Your task to perform on an android device: Open Yahoo.com Image 0: 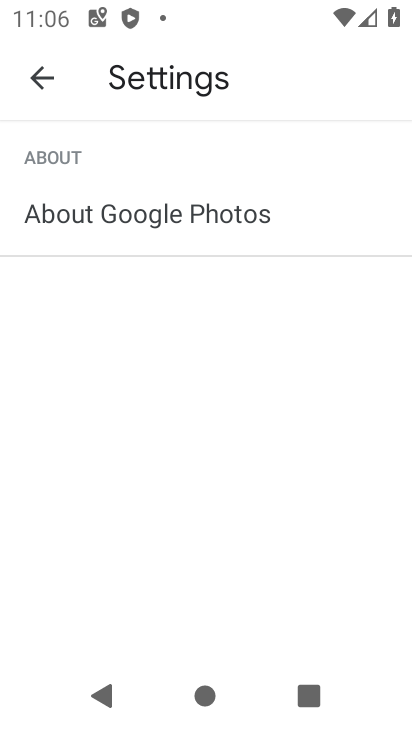
Step 0: press home button
Your task to perform on an android device: Open Yahoo.com Image 1: 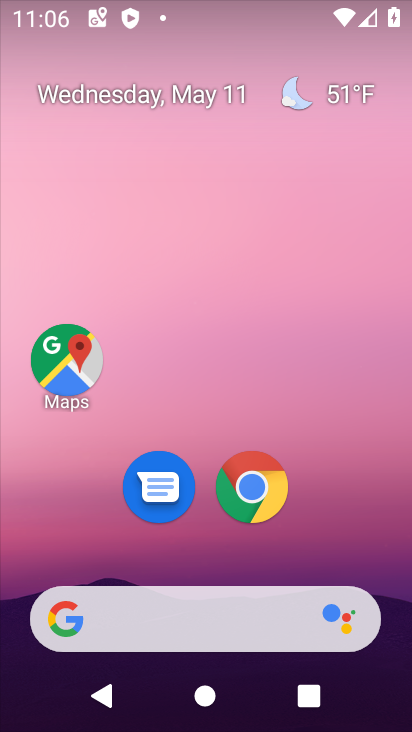
Step 1: click (261, 472)
Your task to perform on an android device: Open Yahoo.com Image 2: 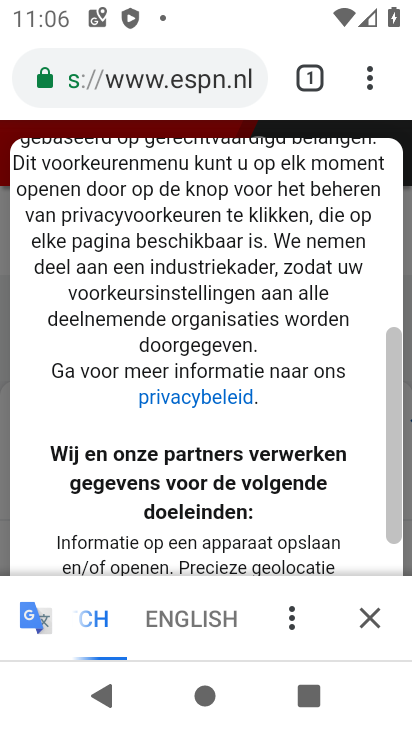
Step 2: click (164, 83)
Your task to perform on an android device: Open Yahoo.com Image 3: 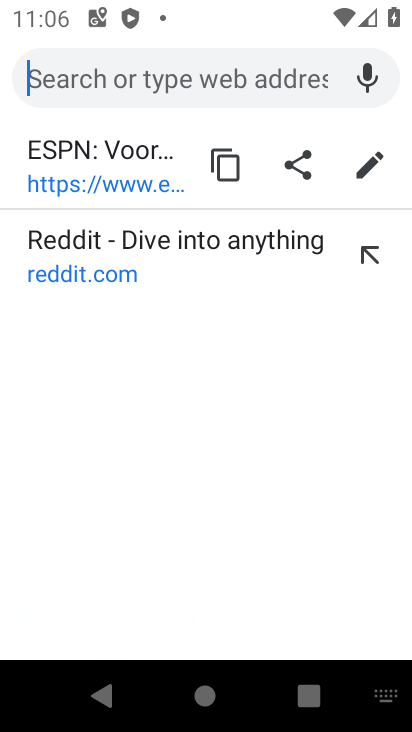
Step 3: type "yahoo.com"
Your task to perform on an android device: Open Yahoo.com Image 4: 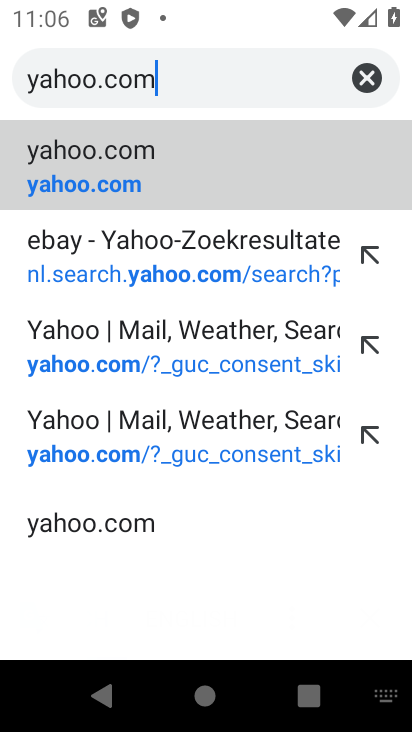
Step 4: click (220, 184)
Your task to perform on an android device: Open Yahoo.com Image 5: 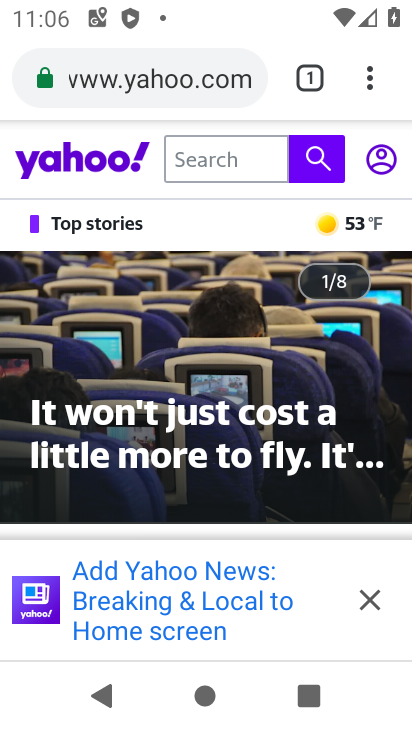
Step 5: task complete